Your task to perform on an android device: Is it going to rain tomorrow? Image 0: 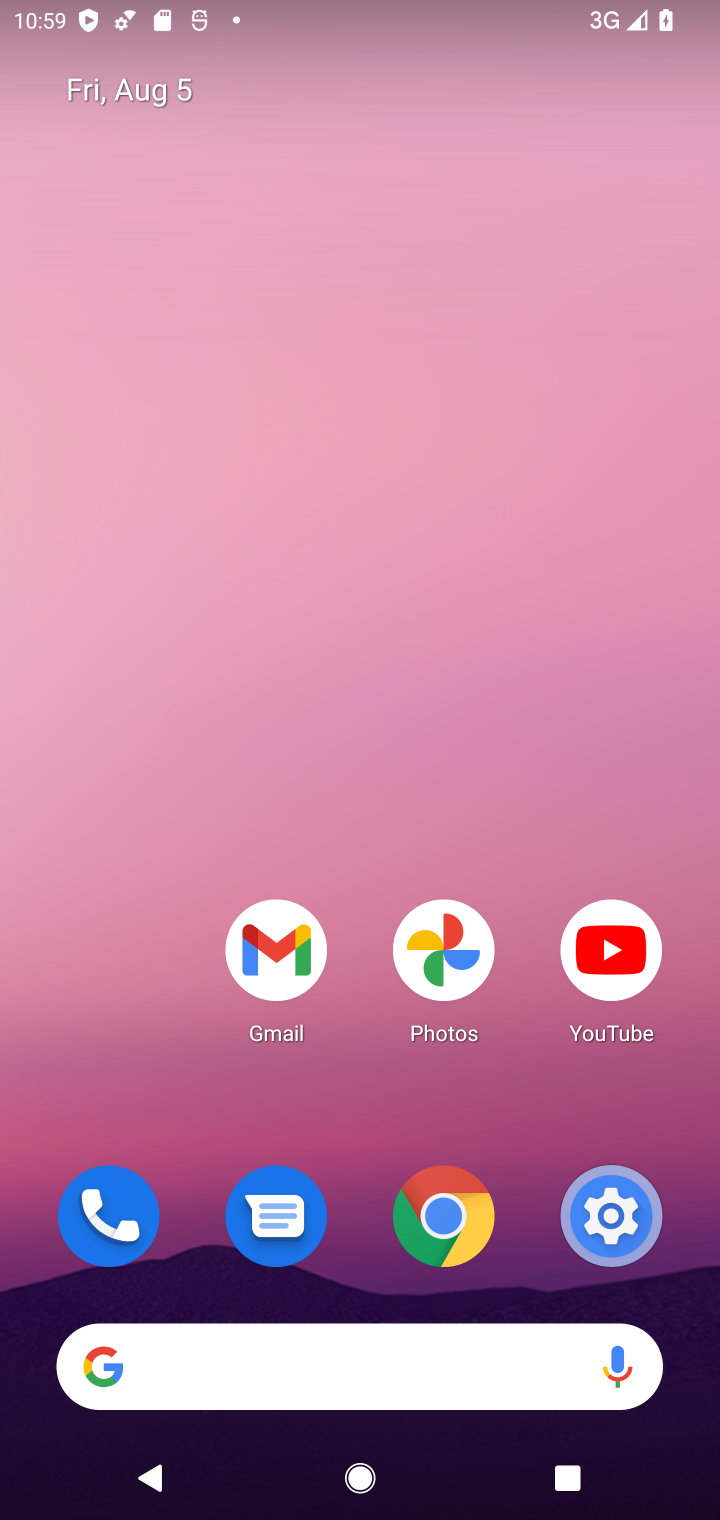
Step 0: drag from (464, 1370) to (538, 19)
Your task to perform on an android device: Is it going to rain tomorrow? Image 1: 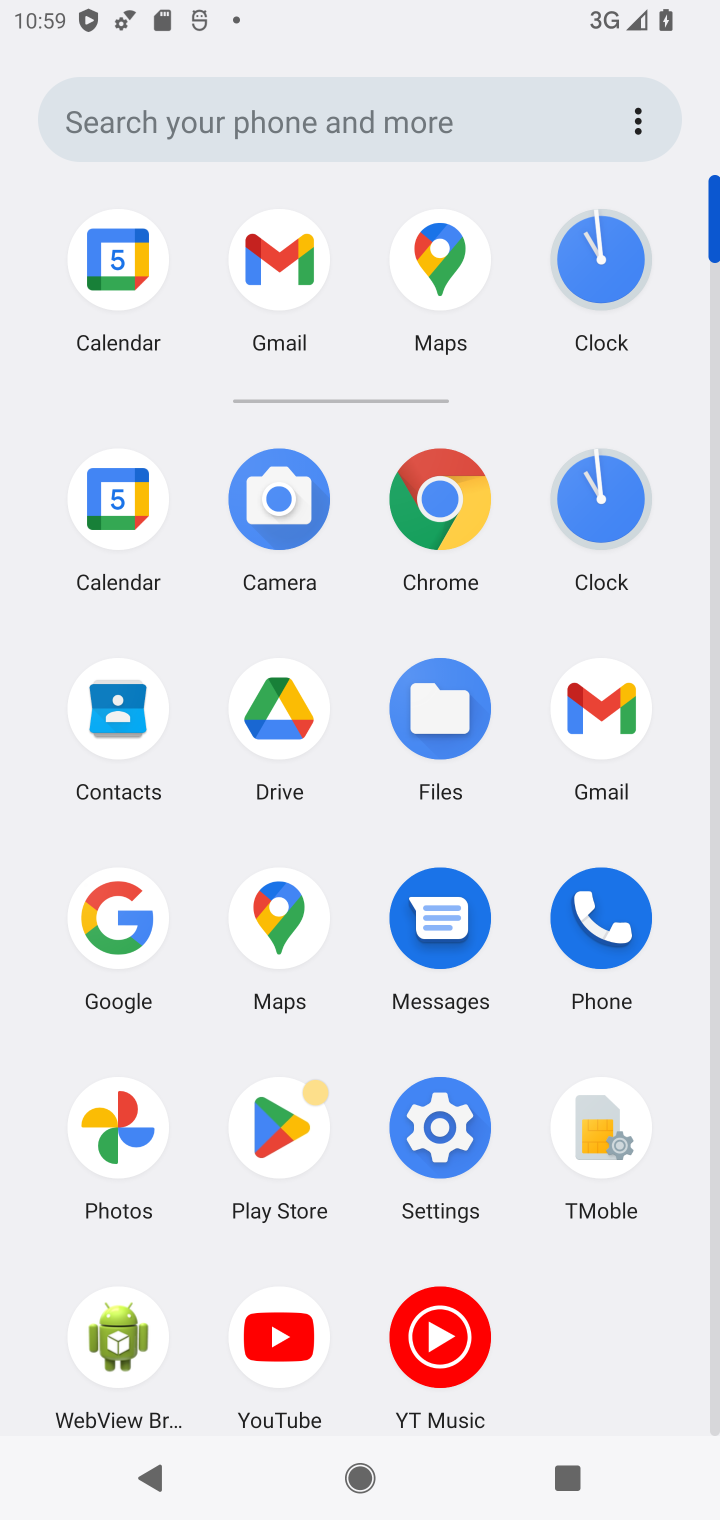
Step 1: click (425, 500)
Your task to perform on an android device: Is it going to rain tomorrow? Image 2: 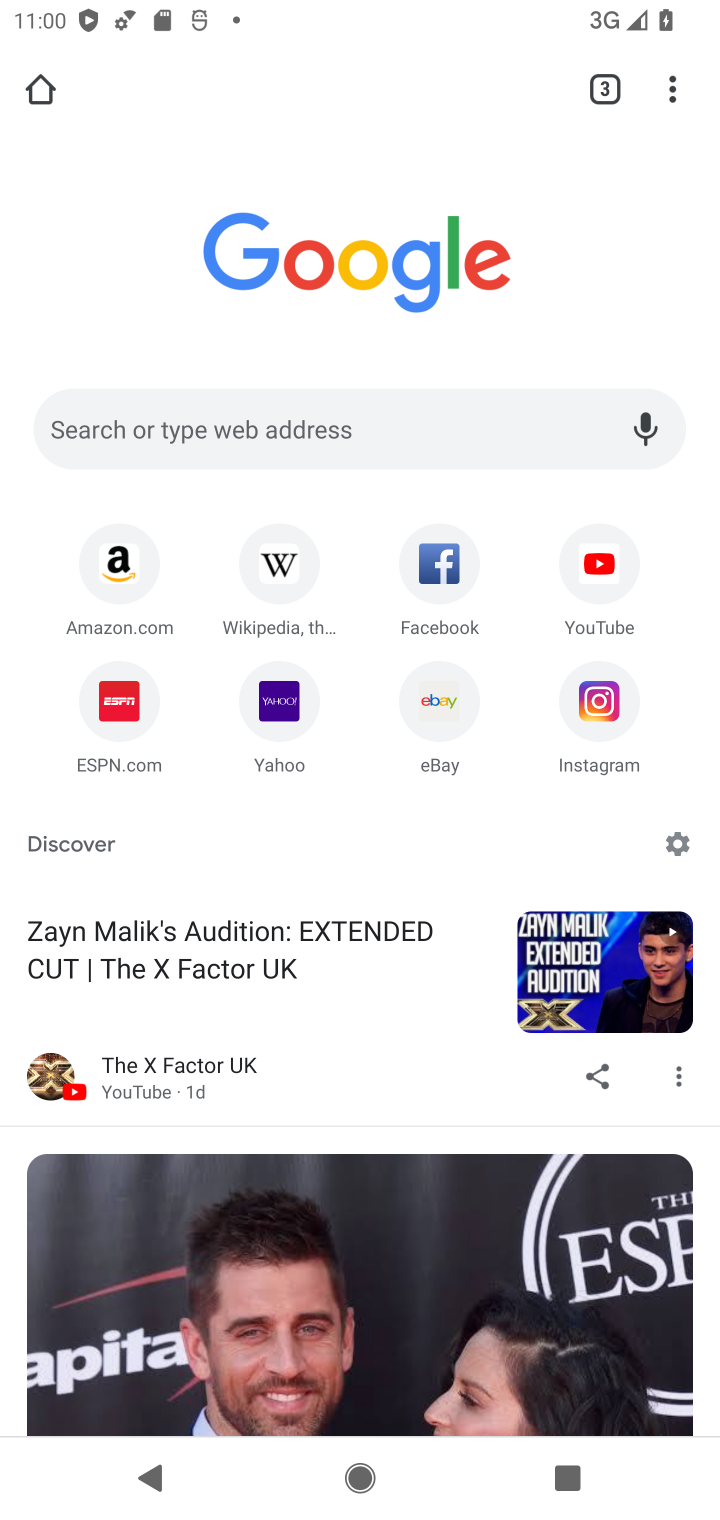
Step 2: click (366, 429)
Your task to perform on an android device: Is it going to rain tomorrow? Image 3: 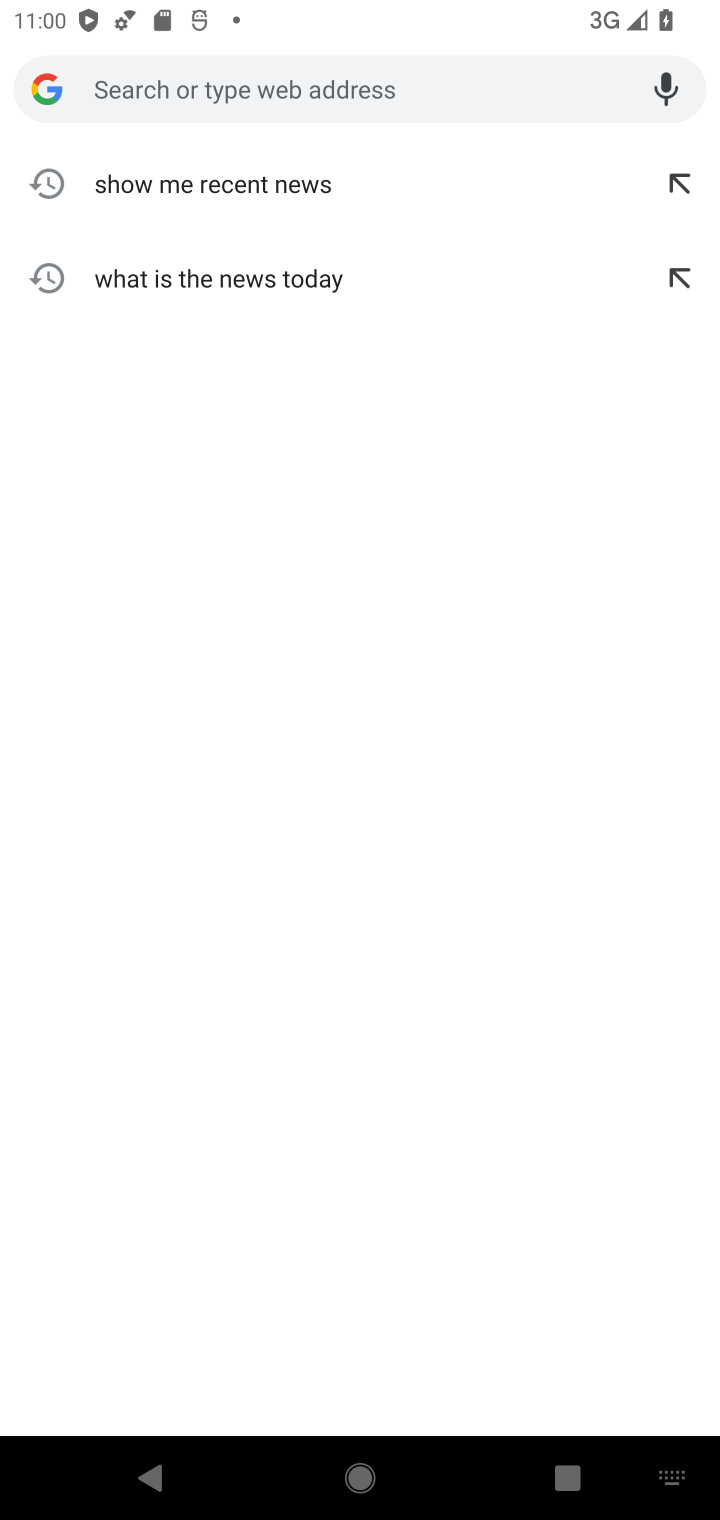
Step 3: type "is it going to  rain tomorrow"
Your task to perform on an android device: Is it going to rain tomorrow? Image 4: 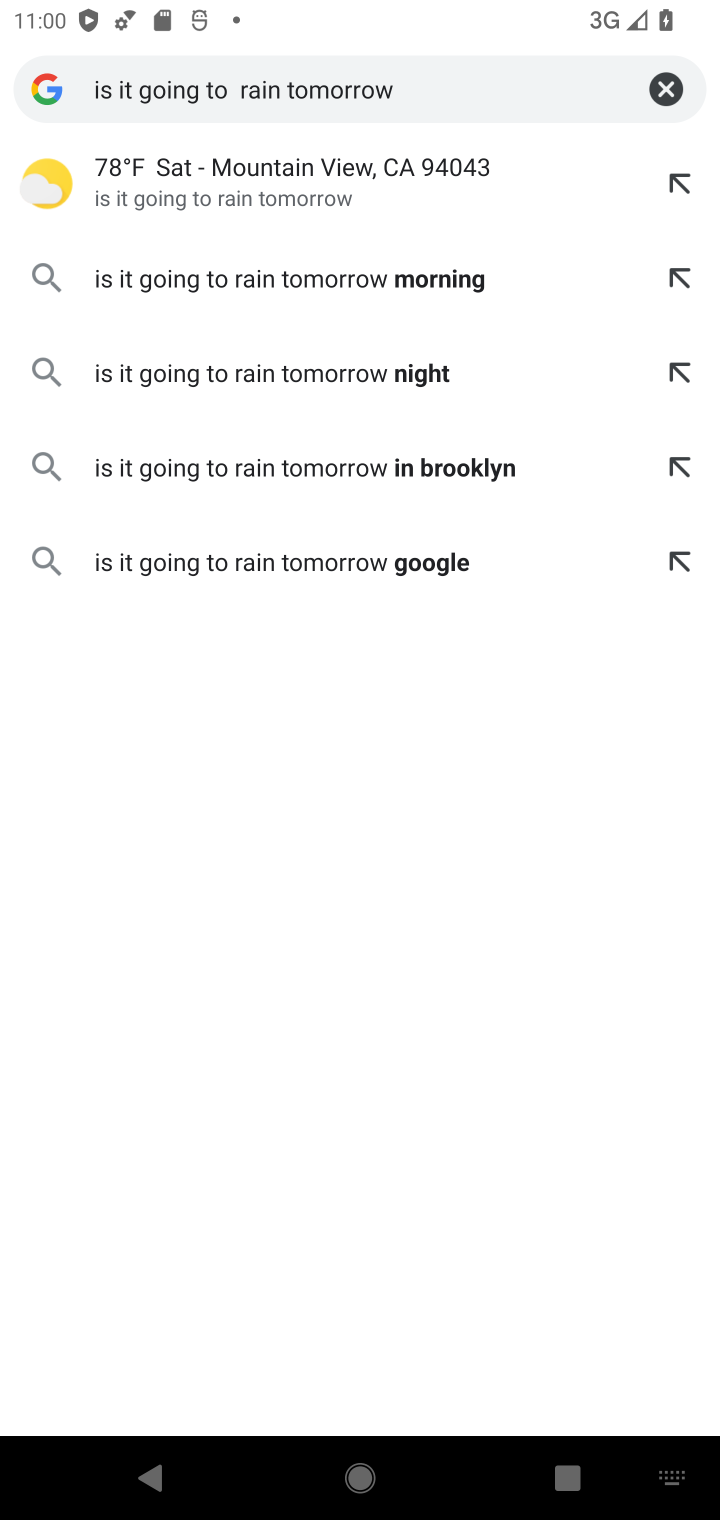
Step 4: click (308, 181)
Your task to perform on an android device: Is it going to rain tomorrow? Image 5: 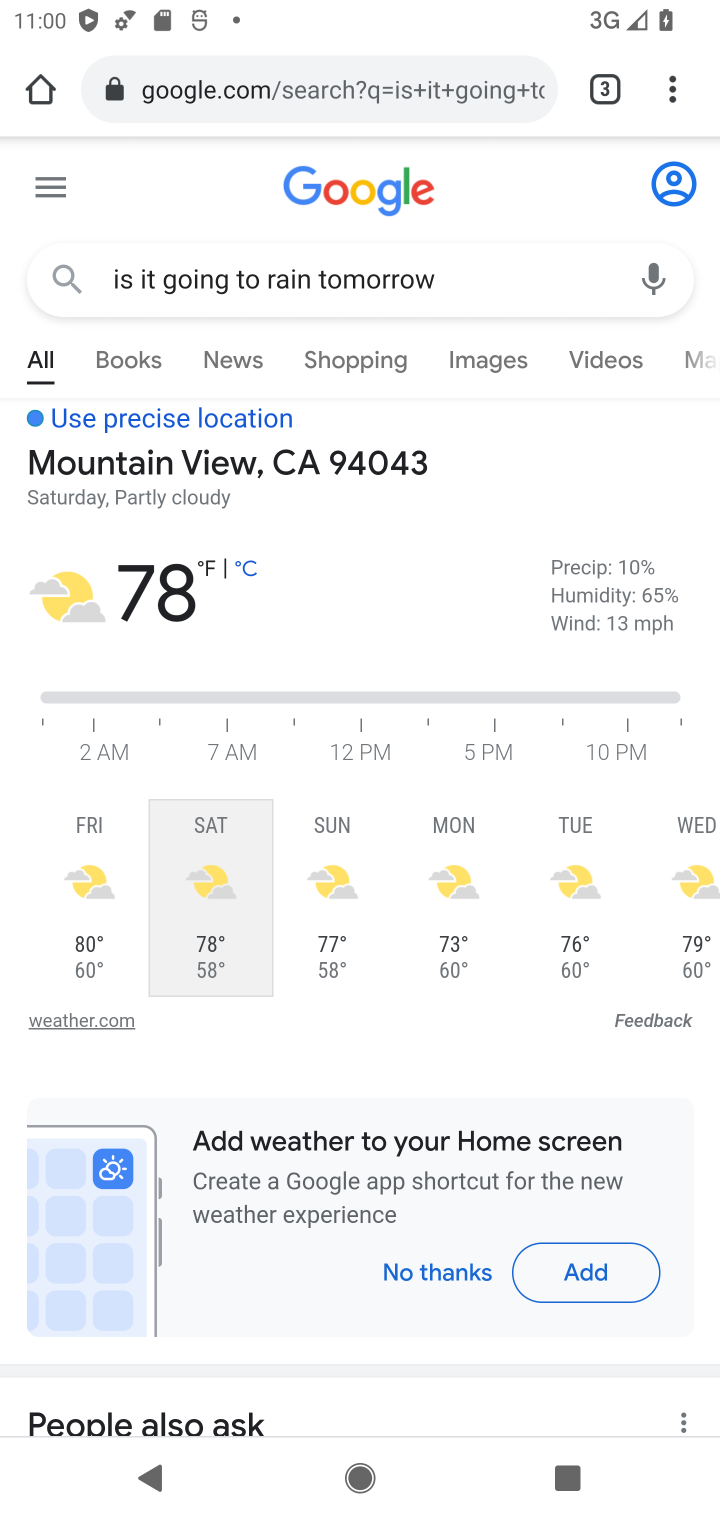
Step 5: task complete